Your task to perform on an android device: Go to notification settings Image 0: 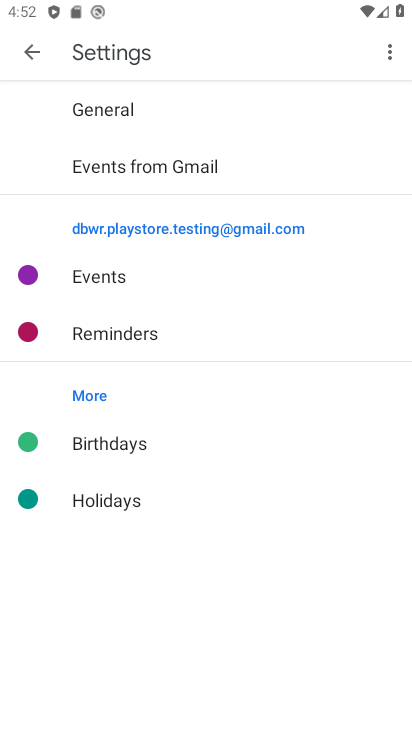
Step 0: press home button
Your task to perform on an android device: Go to notification settings Image 1: 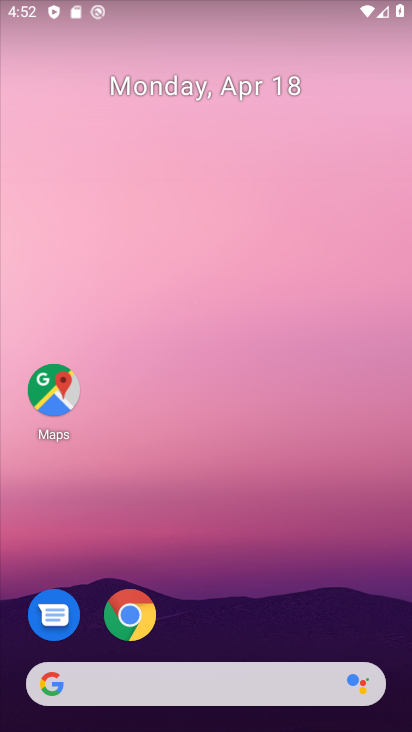
Step 1: drag from (268, 620) to (243, 120)
Your task to perform on an android device: Go to notification settings Image 2: 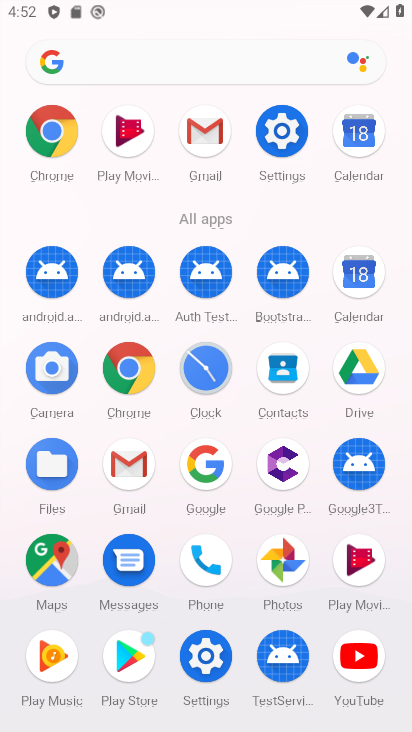
Step 2: click (198, 658)
Your task to perform on an android device: Go to notification settings Image 3: 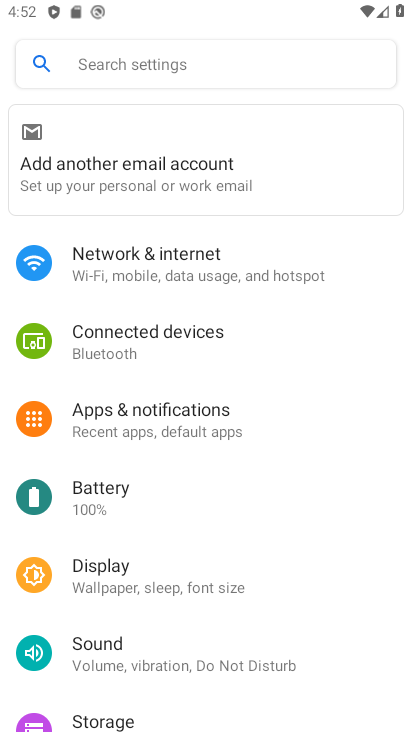
Step 3: click (215, 419)
Your task to perform on an android device: Go to notification settings Image 4: 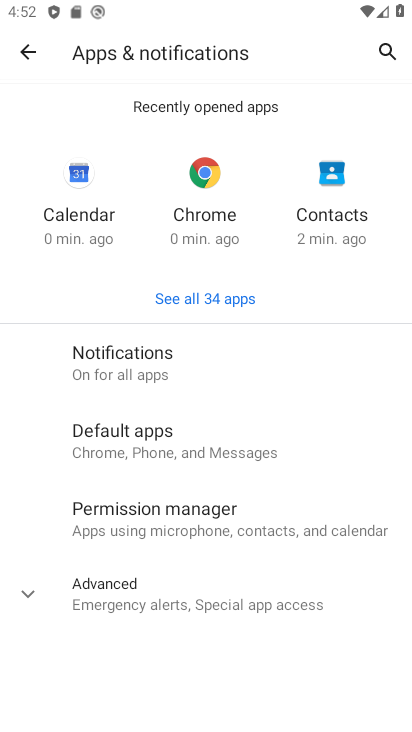
Step 4: click (109, 354)
Your task to perform on an android device: Go to notification settings Image 5: 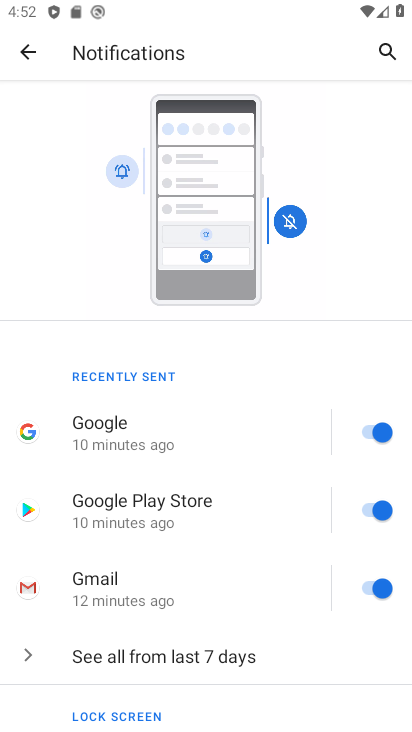
Step 5: task complete